Your task to perform on an android device: Turn off the flashlight Image 0: 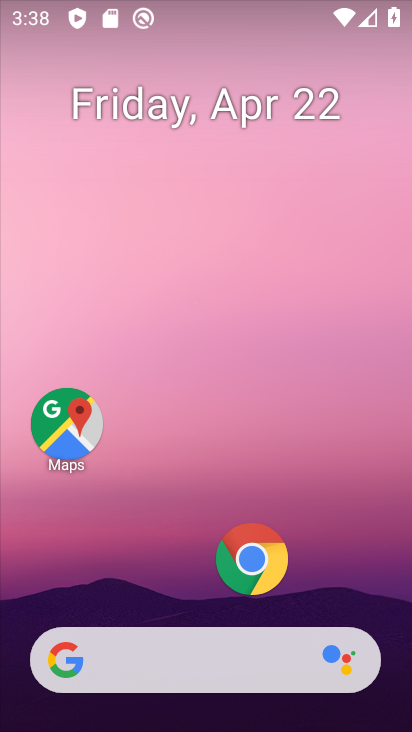
Step 0: drag from (160, 560) to (149, 161)
Your task to perform on an android device: Turn off the flashlight Image 1: 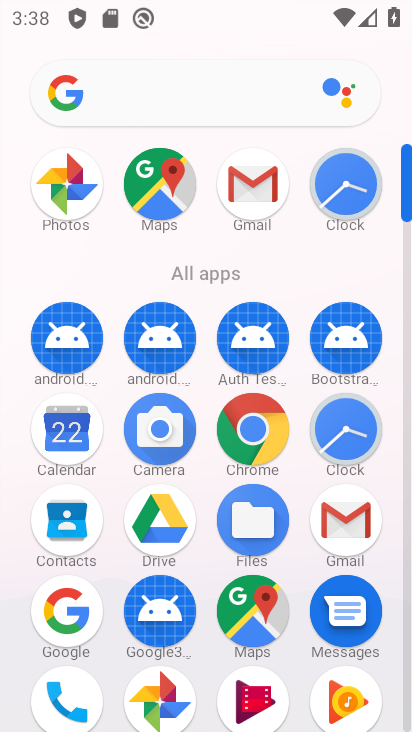
Step 1: drag from (195, 537) to (268, 74)
Your task to perform on an android device: Turn off the flashlight Image 2: 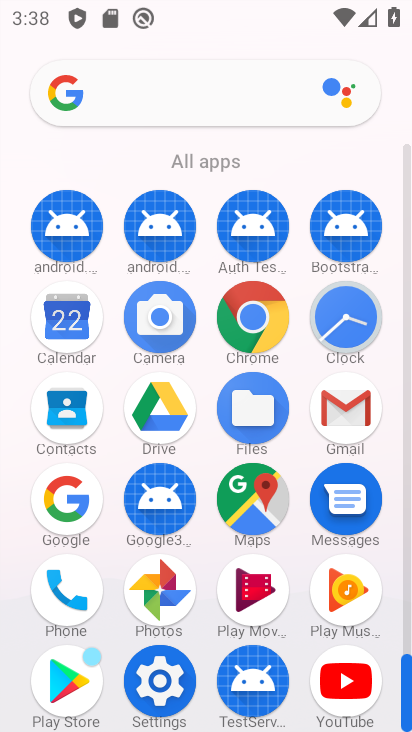
Step 2: click (163, 682)
Your task to perform on an android device: Turn off the flashlight Image 3: 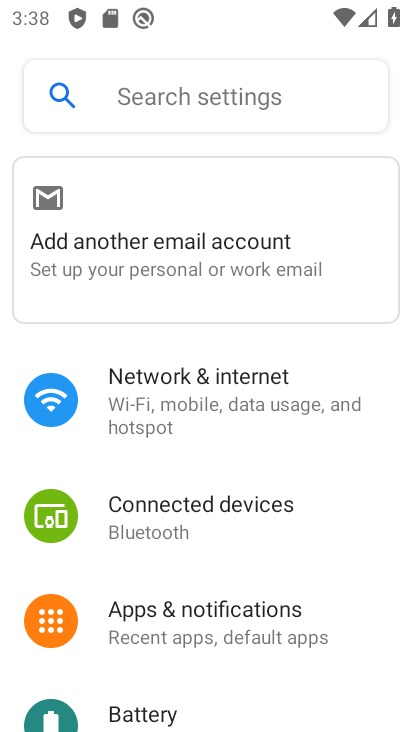
Step 3: click (223, 89)
Your task to perform on an android device: Turn off the flashlight Image 4: 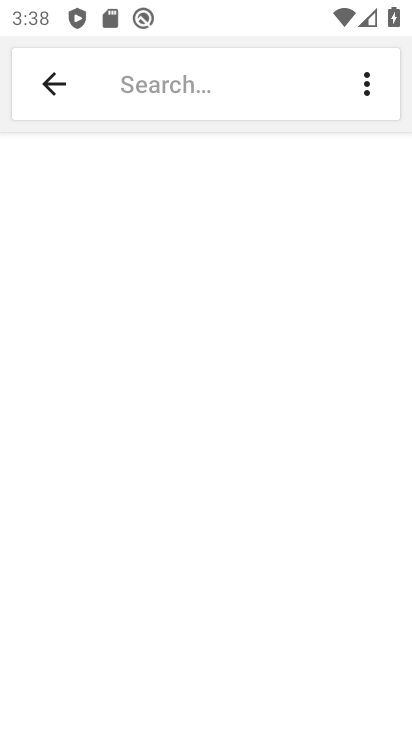
Step 4: click (267, 92)
Your task to perform on an android device: Turn off the flashlight Image 5: 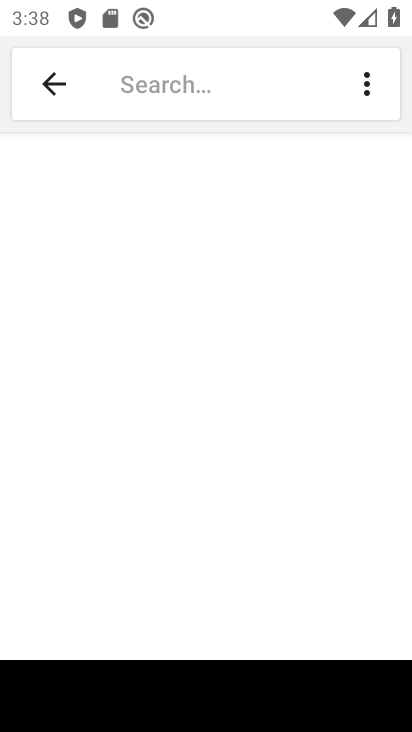
Step 5: type "flashlight"
Your task to perform on an android device: Turn off the flashlight Image 6: 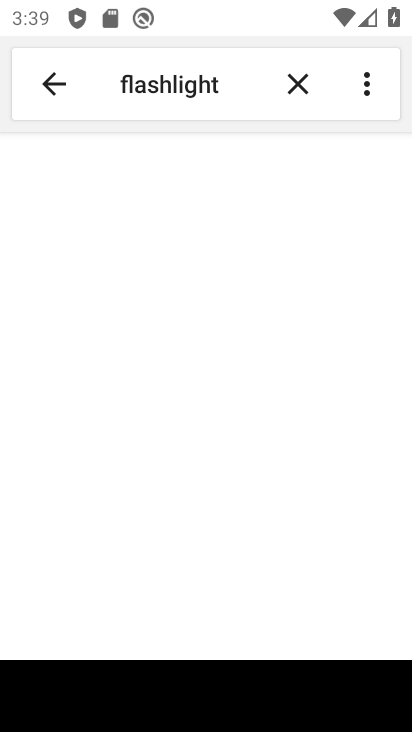
Step 6: click (194, 170)
Your task to perform on an android device: Turn off the flashlight Image 7: 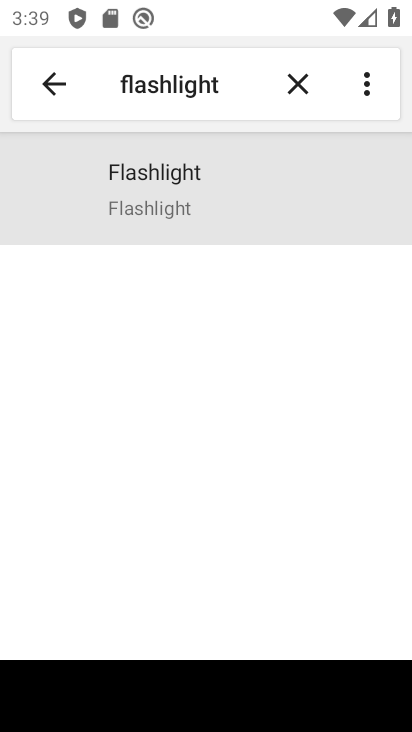
Step 7: click (193, 170)
Your task to perform on an android device: Turn off the flashlight Image 8: 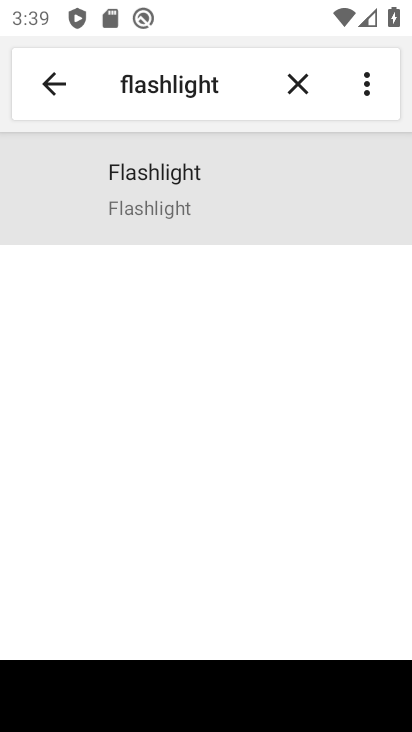
Step 8: click (184, 175)
Your task to perform on an android device: Turn off the flashlight Image 9: 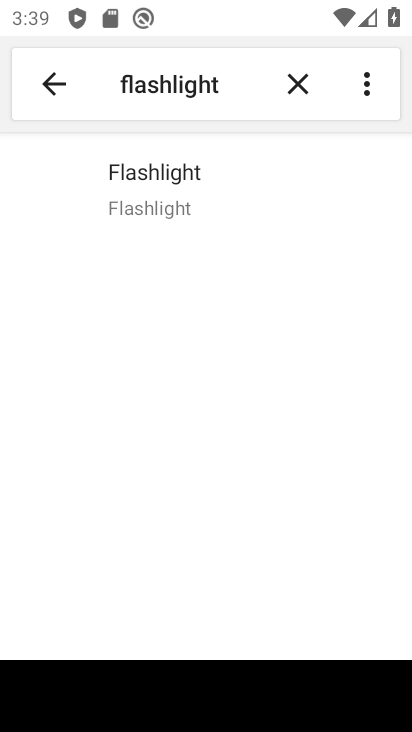
Step 9: task complete